Your task to perform on an android device: set default search engine in the chrome app Image 0: 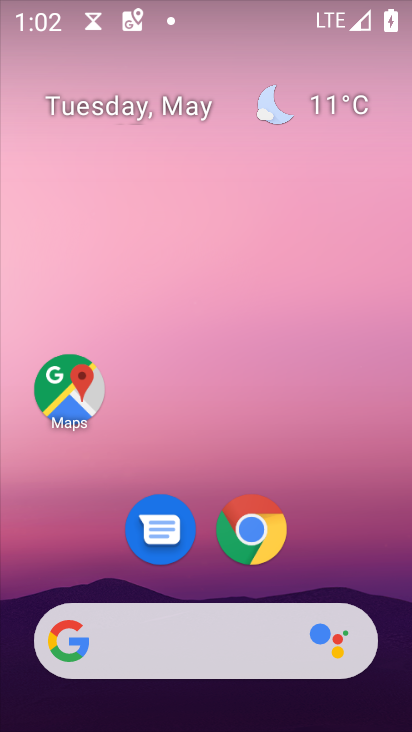
Step 0: click (241, 531)
Your task to perform on an android device: set default search engine in the chrome app Image 1: 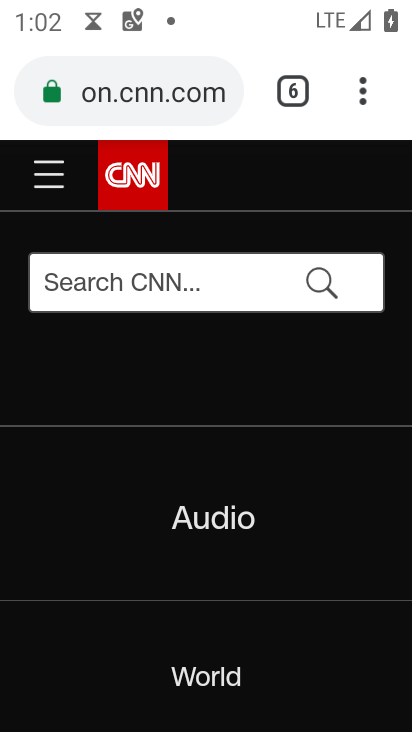
Step 1: click (364, 98)
Your task to perform on an android device: set default search engine in the chrome app Image 2: 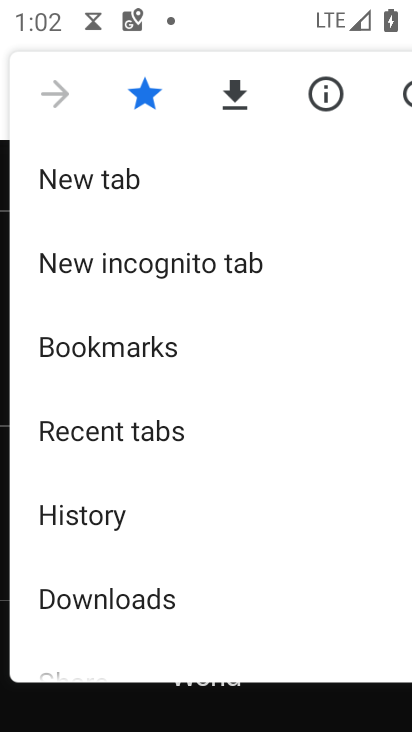
Step 2: drag from (172, 531) to (163, 199)
Your task to perform on an android device: set default search engine in the chrome app Image 3: 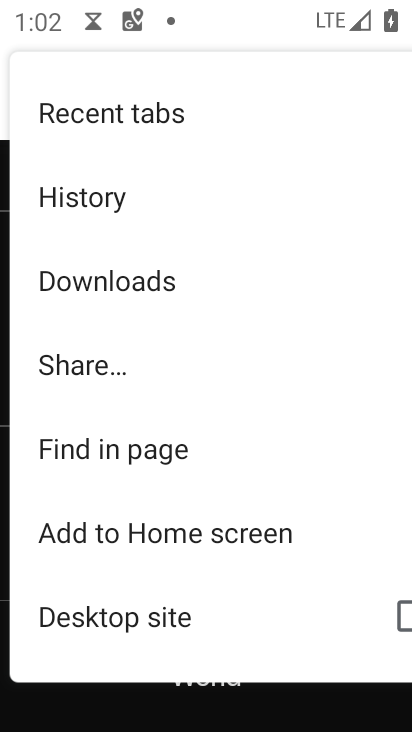
Step 3: click (90, 587)
Your task to perform on an android device: set default search engine in the chrome app Image 4: 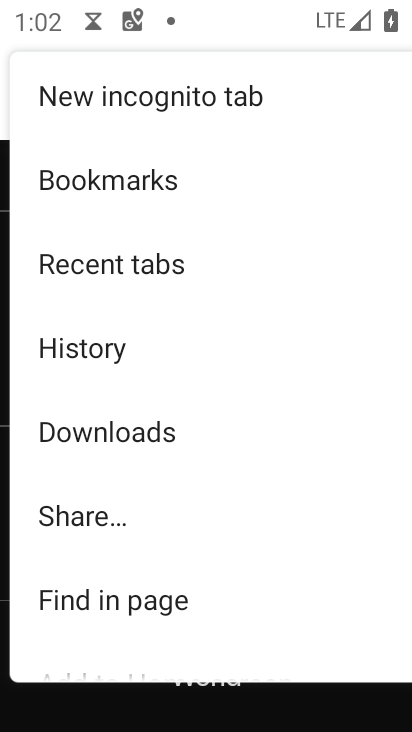
Step 4: drag from (122, 148) to (126, 548)
Your task to perform on an android device: set default search engine in the chrome app Image 5: 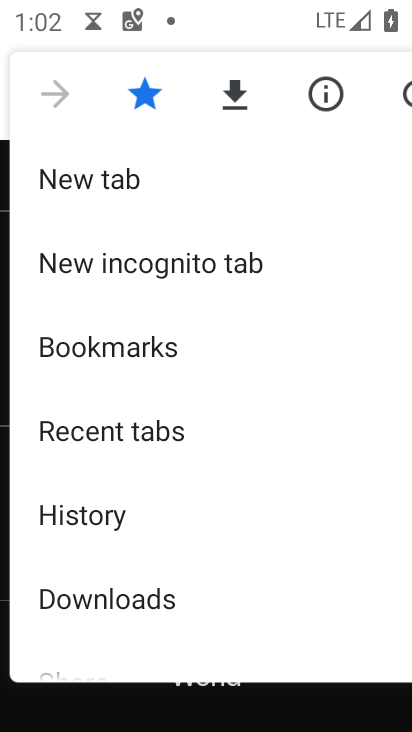
Step 5: click (126, 238)
Your task to perform on an android device: set default search engine in the chrome app Image 6: 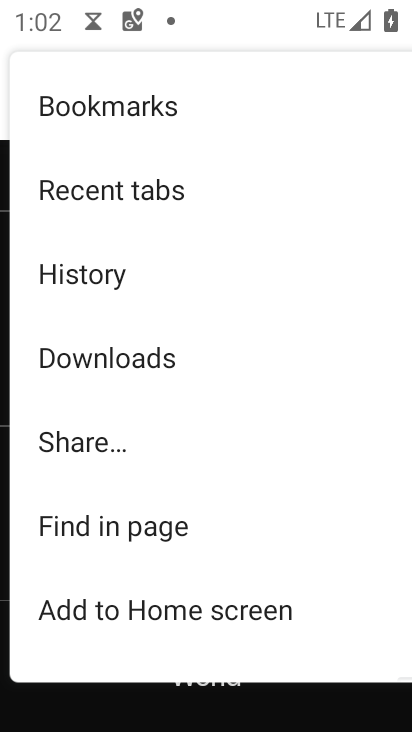
Step 6: drag from (135, 173) to (195, 35)
Your task to perform on an android device: set default search engine in the chrome app Image 7: 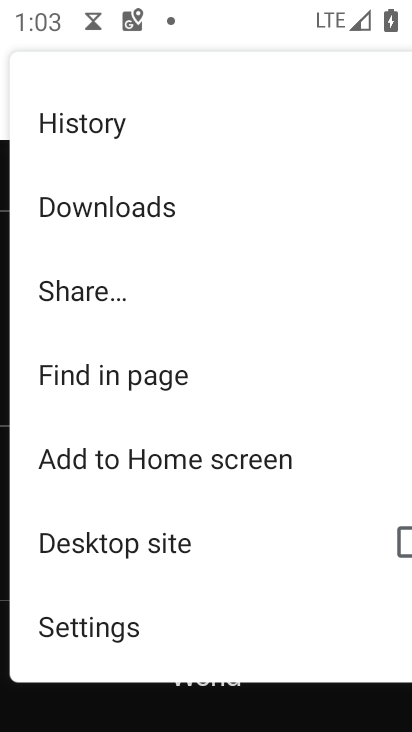
Step 7: click (104, 620)
Your task to perform on an android device: set default search engine in the chrome app Image 8: 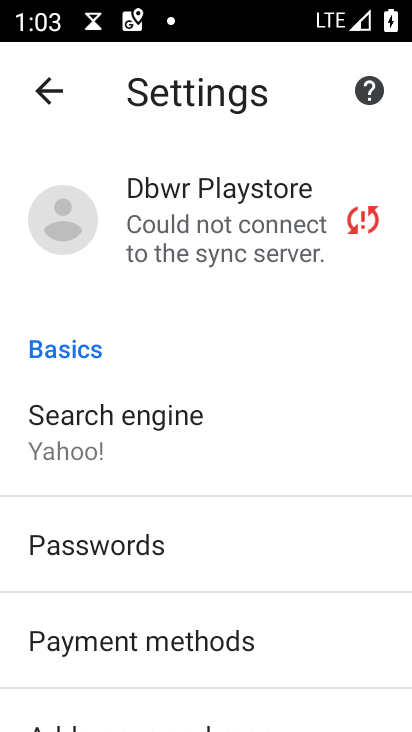
Step 8: click (78, 433)
Your task to perform on an android device: set default search engine in the chrome app Image 9: 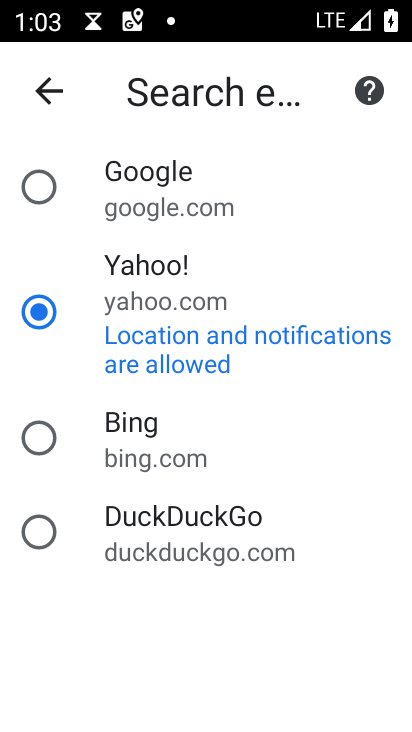
Step 9: click (47, 192)
Your task to perform on an android device: set default search engine in the chrome app Image 10: 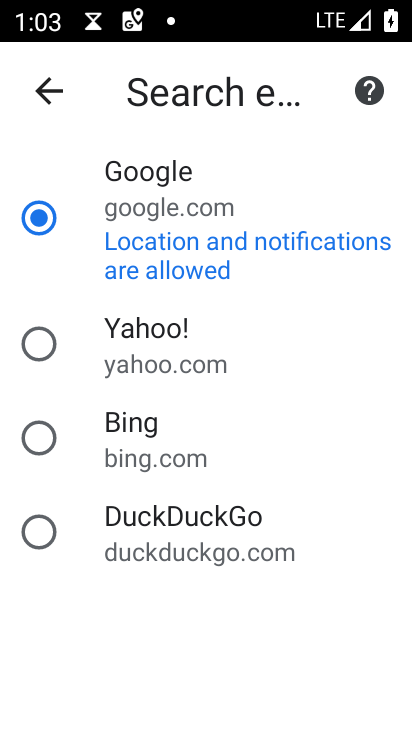
Step 10: task complete